Your task to perform on an android device: turn on javascript in the chrome app Image 0: 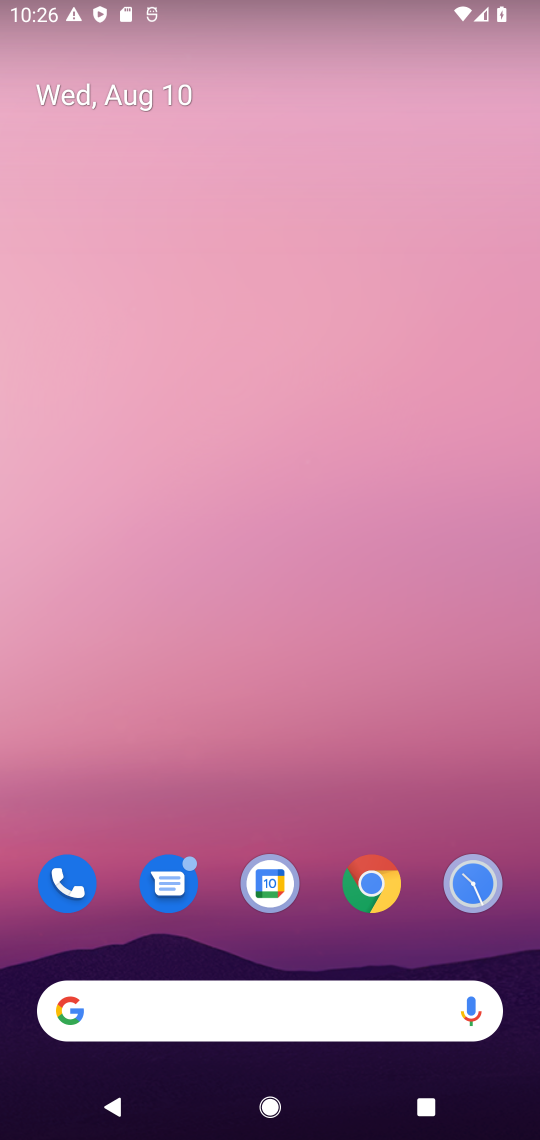
Step 0: drag from (327, 927) to (374, 41)
Your task to perform on an android device: turn on javascript in the chrome app Image 1: 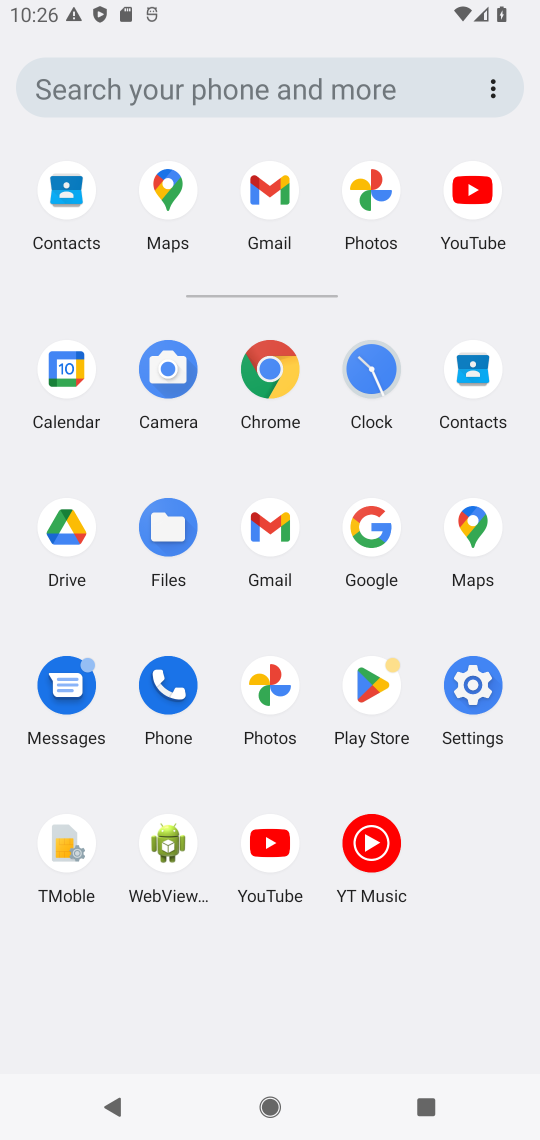
Step 1: click (265, 364)
Your task to perform on an android device: turn on javascript in the chrome app Image 2: 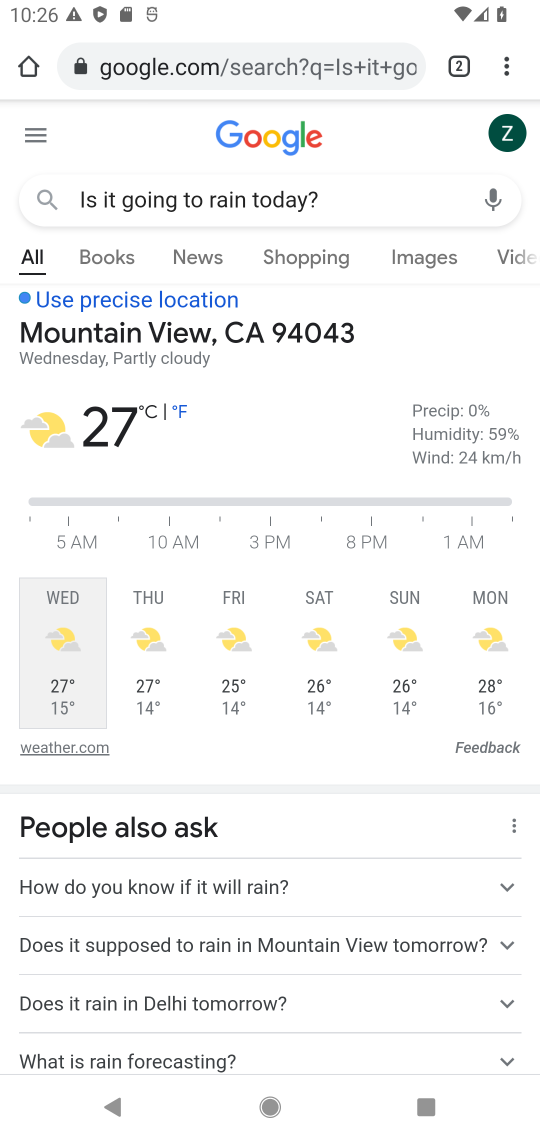
Step 2: drag from (505, 63) to (344, 858)
Your task to perform on an android device: turn on javascript in the chrome app Image 3: 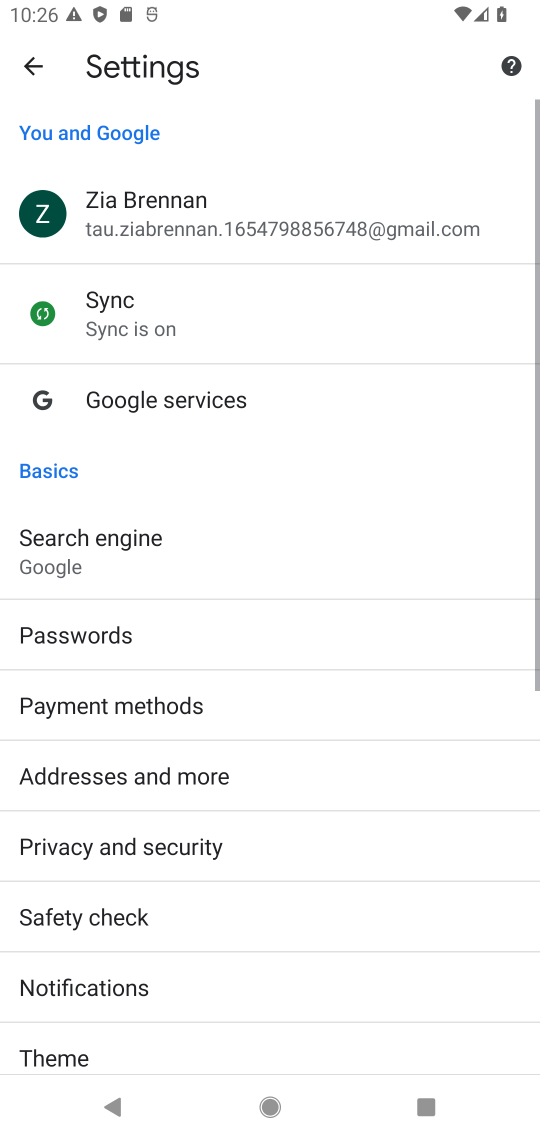
Step 3: drag from (340, 910) to (370, 302)
Your task to perform on an android device: turn on javascript in the chrome app Image 4: 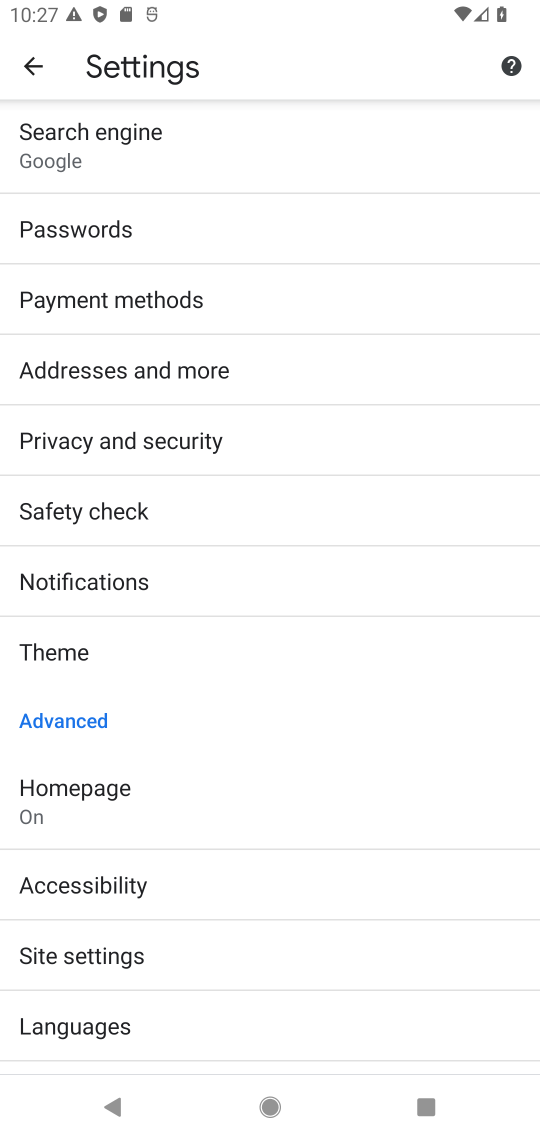
Step 4: click (84, 959)
Your task to perform on an android device: turn on javascript in the chrome app Image 5: 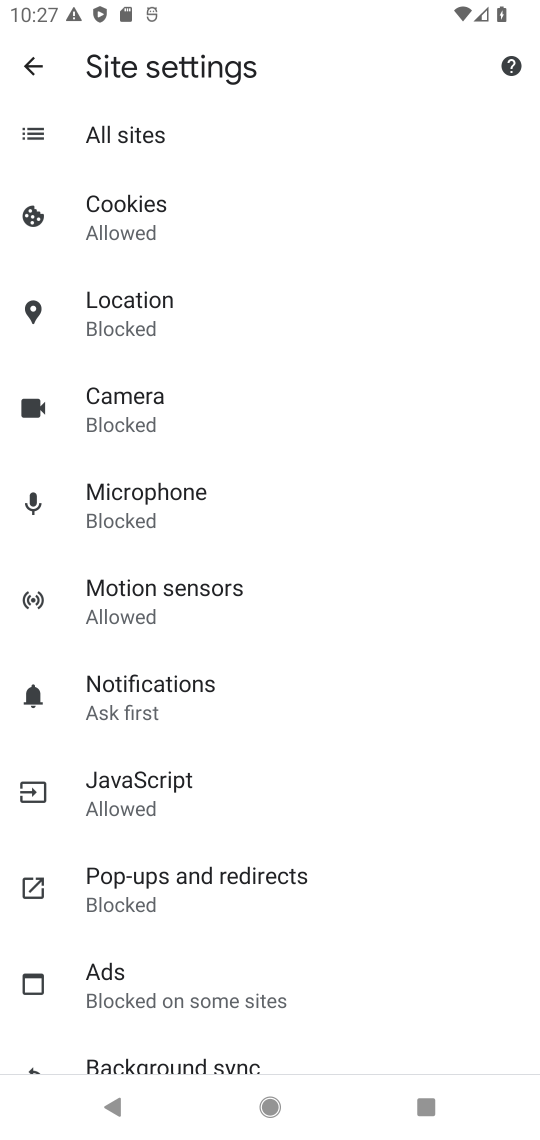
Step 5: click (114, 802)
Your task to perform on an android device: turn on javascript in the chrome app Image 6: 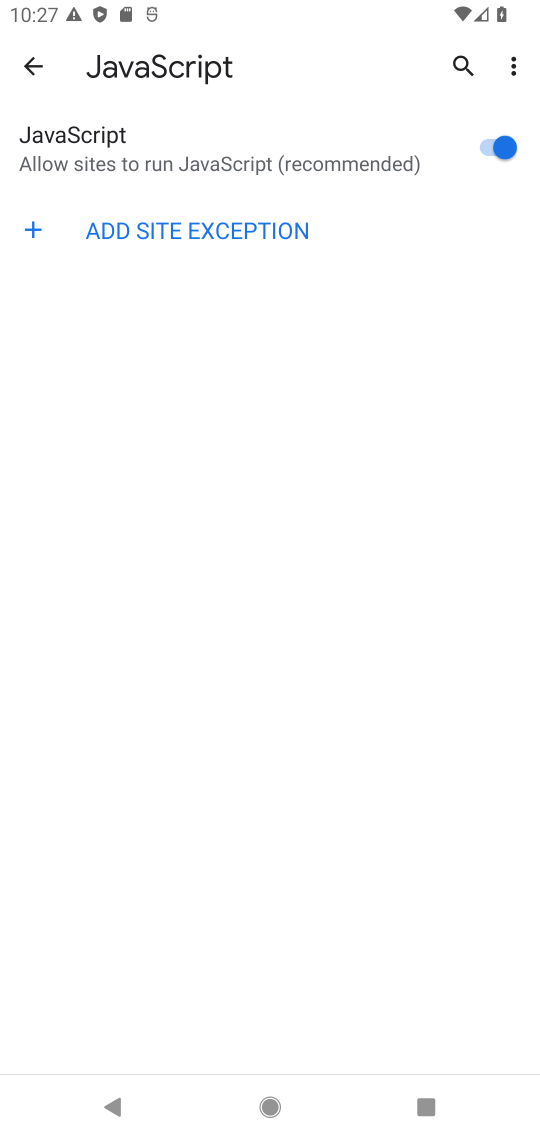
Step 6: task complete